Your task to perform on an android device: Open location settings Image 0: 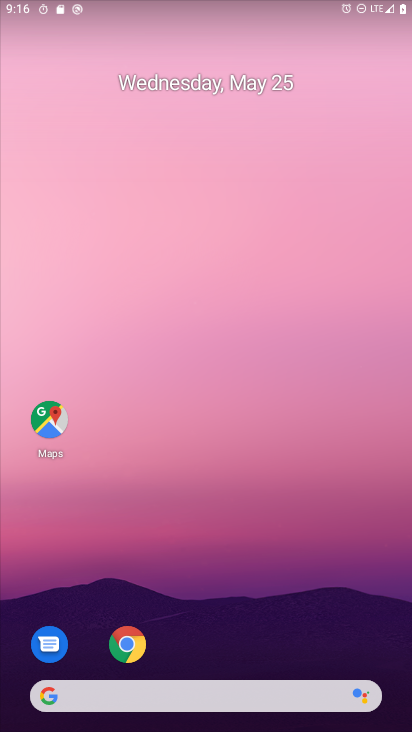
Step 0: drag from (341, 619) to (289, 43)
Your task to perform on an android device: Open location settings Image 1: 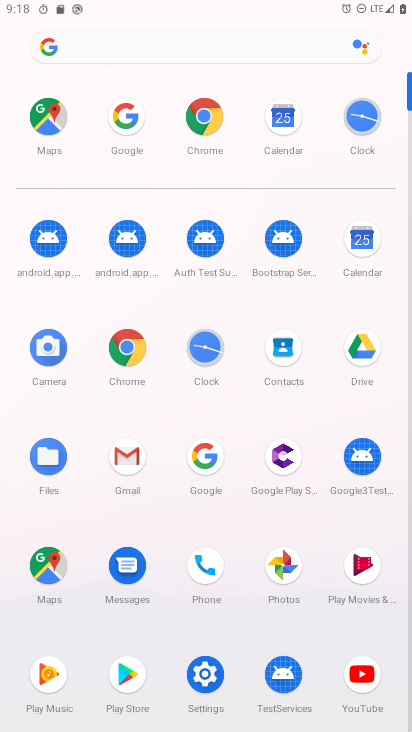
Step 1: click (196, 681)
Your task to perform on an android device: Open location settings Image 2: 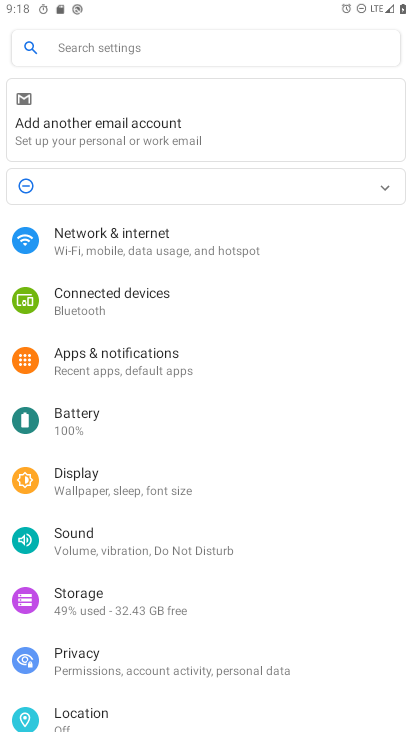
Step 2: click (86, 707)
Your task to perform on an android device: Open location settings Image 3: 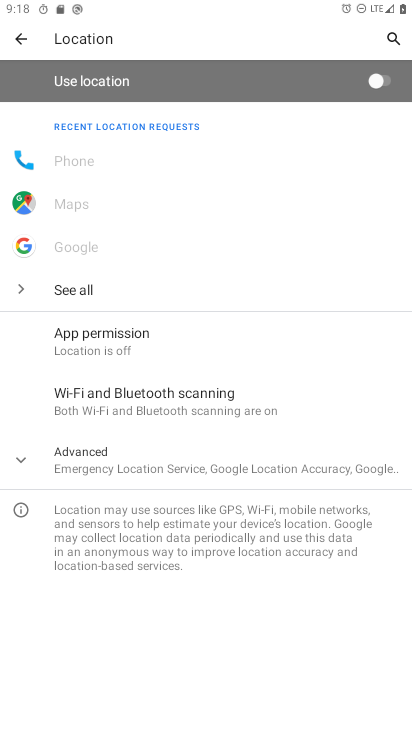
Step 3: task complete